Your task to perform on an android device: turn off priority inbox in the gmail app Image 0: 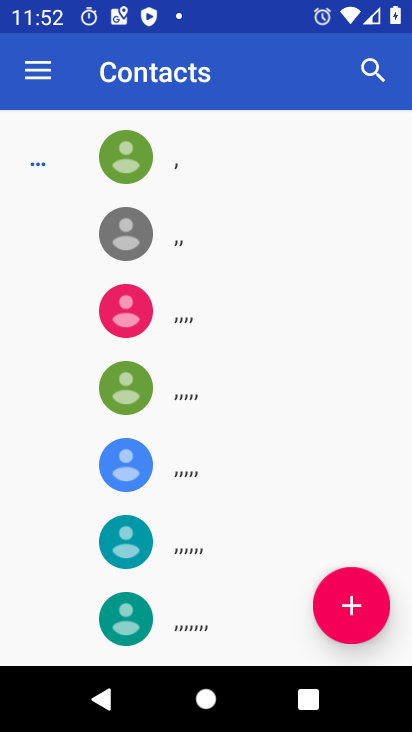
Step 0: press home button
Your task to perform on an android device: turn off priority inbox in the gmail app Image 1: 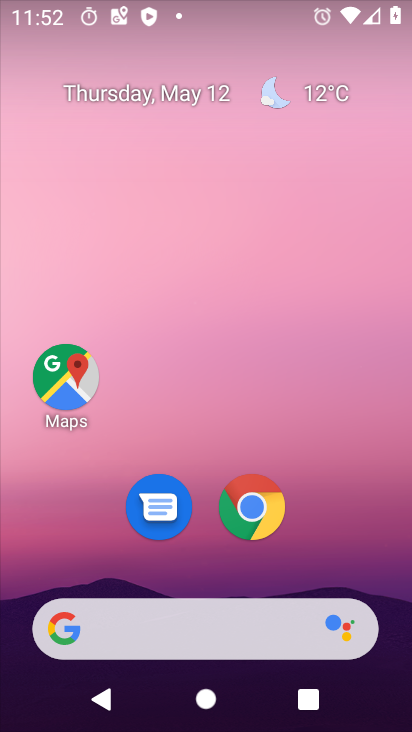
Step 1: drag from (217, 576) to (340, 5)
Your task to perform on an android device: turn off priority inbox in the gmail app Image 2: 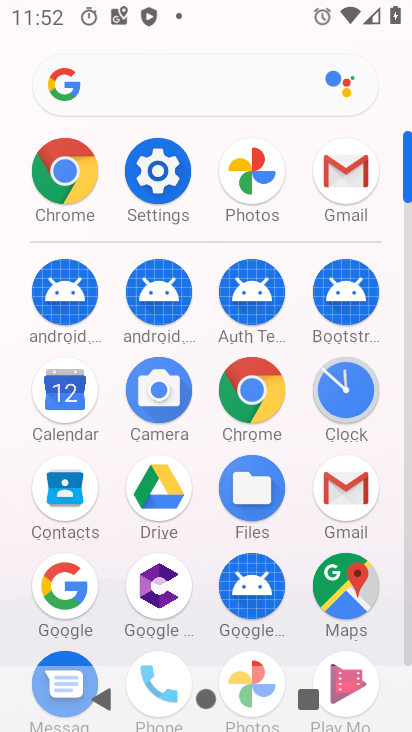
Step 2: click (333, 484)
Your task to perform on an android device: turn off priority inbox in the gmail app Image 3: 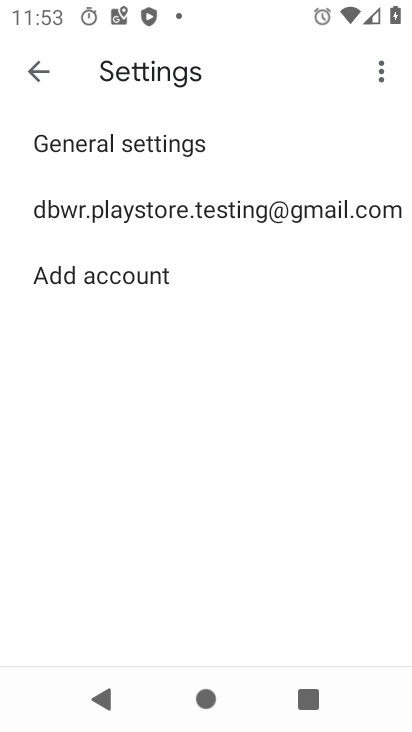
Step 3: click (173, 154)
Your task to perform on an android device: turn off priority inbox in the gmail app Image 4: 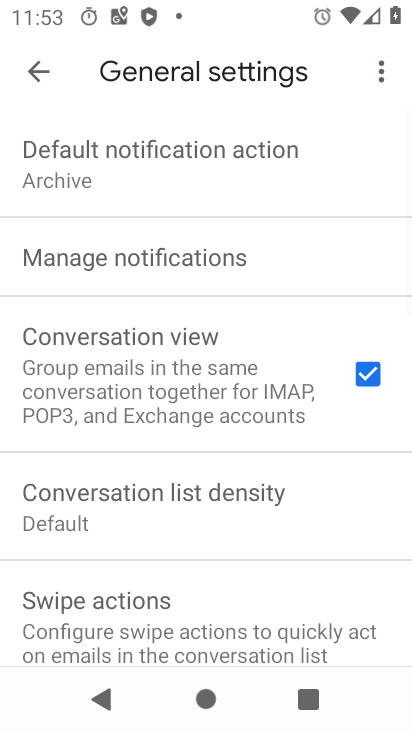
Step 4: click (41, 77)
Your task to perform on an android device: turn off priority inbox in the gmail app Image 5: 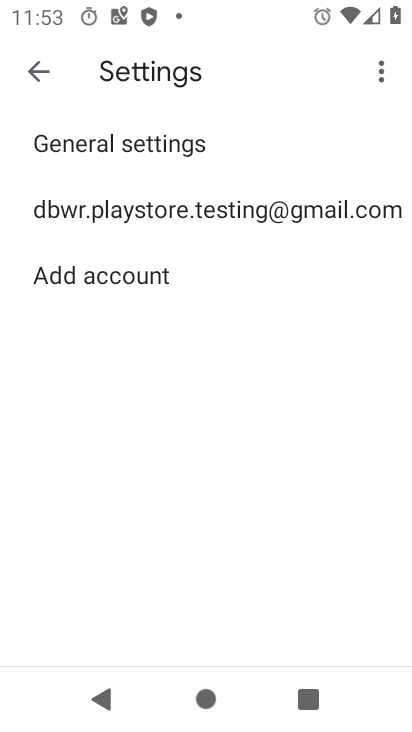
Step 5: click (195, 215)
Your task to perform on an android device: turn off priority inbox in the gmail app Image 6: 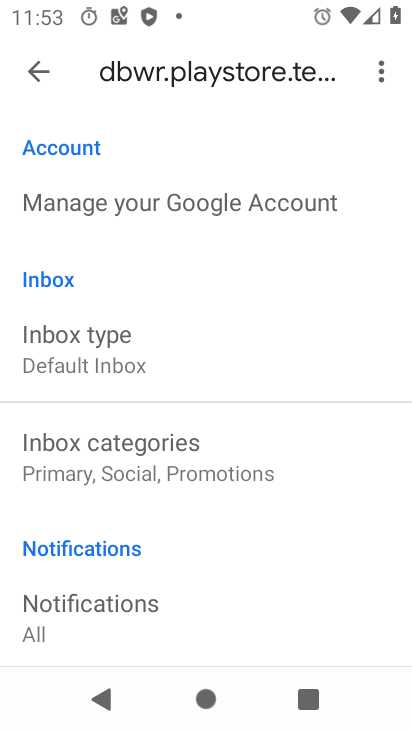
Step 6: click (84, 350)
Your task to perform on an android device: turn off priority inbox in the gmail app Image 7: 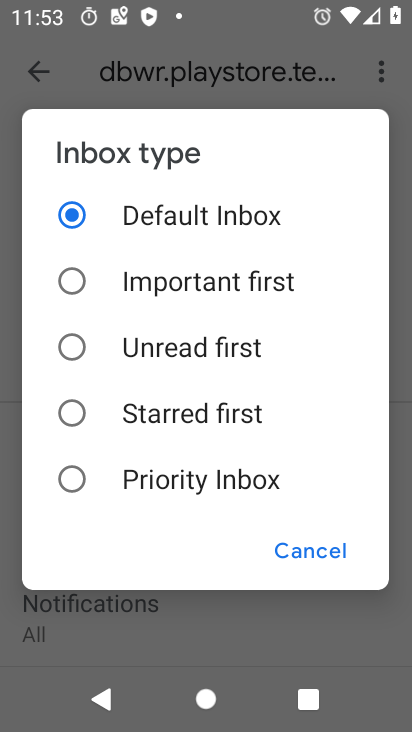
Step 7: click (74, 298)
Your task to perform on an android device: turn off priority inbox in the gmail app Image 8: 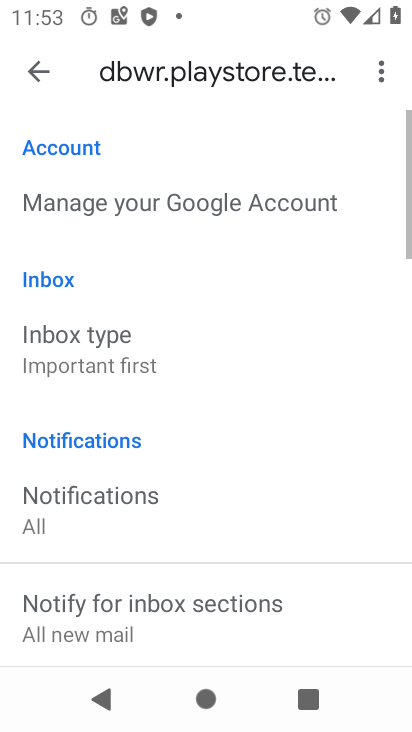
Step 8: task complete